Your task to perform on an android device: turn vacation reply on in the gmail app Image 0: 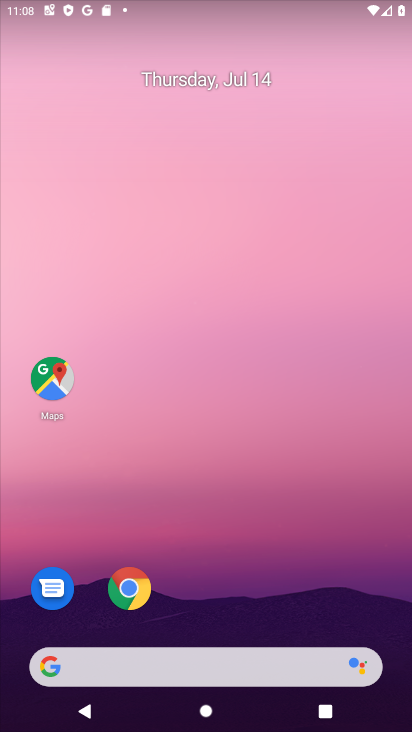
Step 0: drag from (174, 656) to (313, 134)
Your task to perform on an android device: turn vacation reply on in the gmail app Image 1: 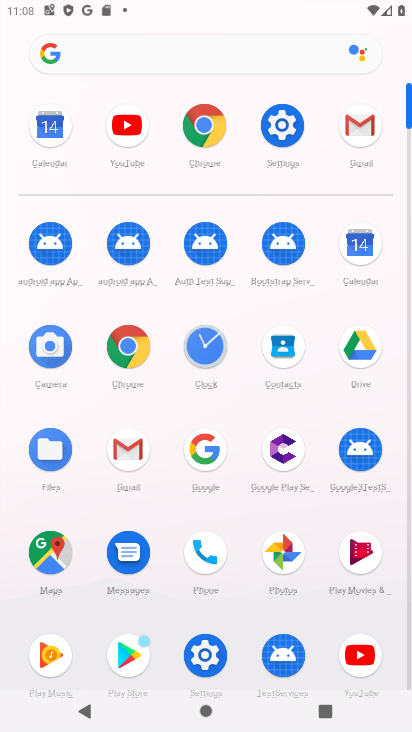
Step 1: click (368, 132)
Your task to perform on an android device: turn vacation reply on in the gmail app Image 2: 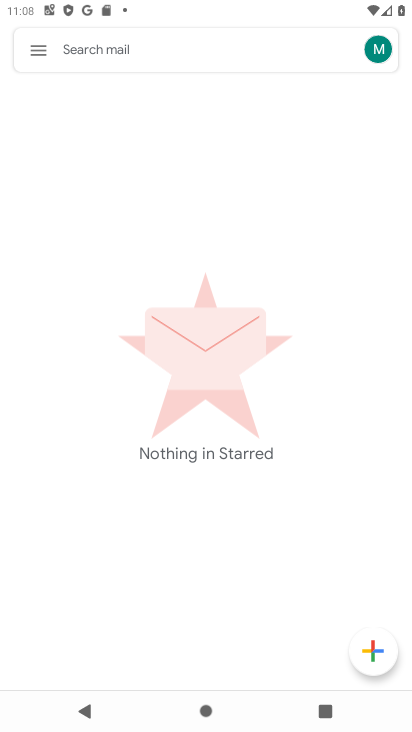
Step 2: click (40, 43)
Your task to perform on an android device: turn vacation reply on in the gmail app Image 3: 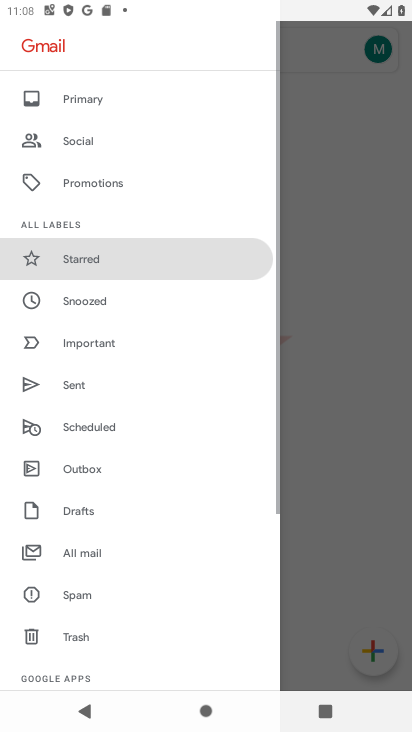
Step 3: drag from (124, 631) to (265, 18)
Your task to perform on an android device: turn vacation reply on in the gmail app Image 4: 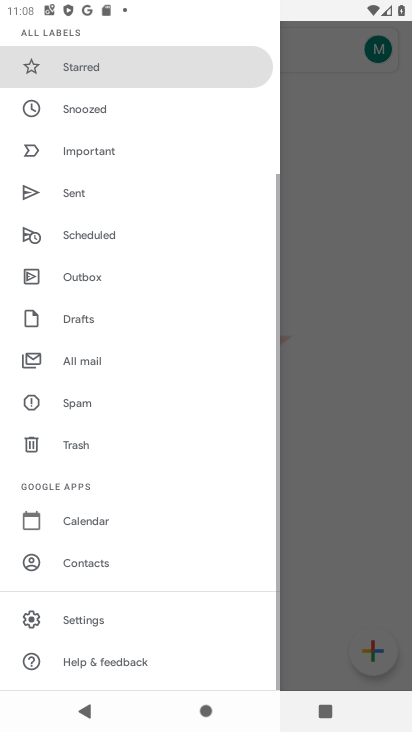
Step 4: click (98, 620)
Your task to perform on an android device: turn vacation reply on in the gmail app Image 5: 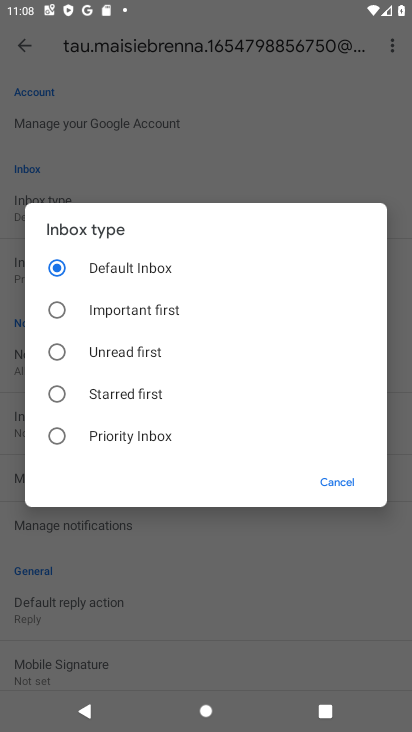
Step 5: click (330, 485)
Your task to perform on an android device: turn vacation reply on in the gmail app Image 6: 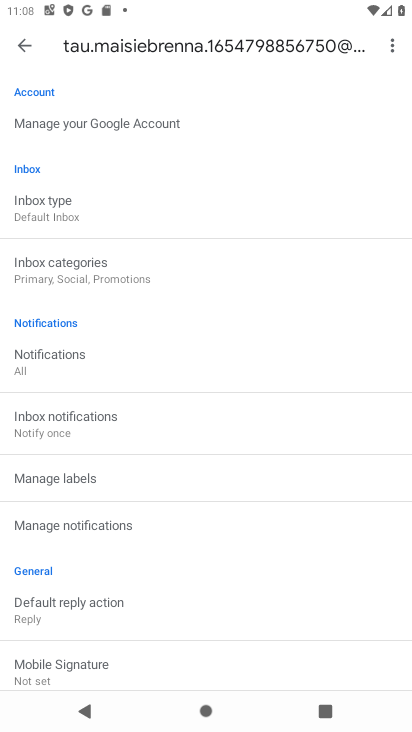
Step 6: drag from (228, 607) to (325, 139)
Your task to perform on an android device: turn vacation reply on in the gmail app Image 7: 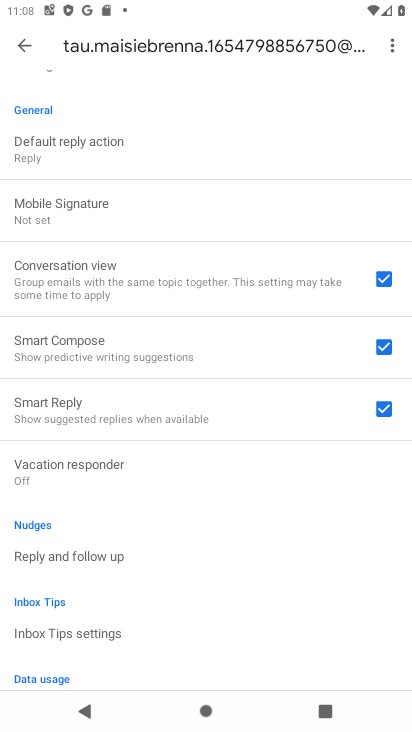
Step 7: click (109, 469)
Your task to perform on an android device: turn vacation reply on in the gmail app Image 8: 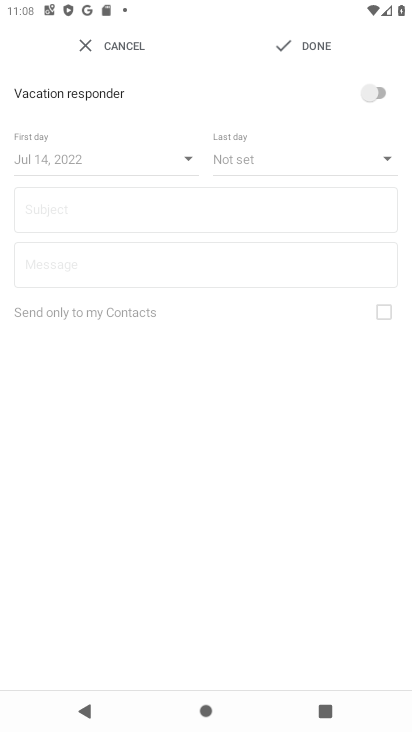
Step 8: click (380, 91)
Your task to perform on an android device: turn vacation reply on in the gmail app Image 9: 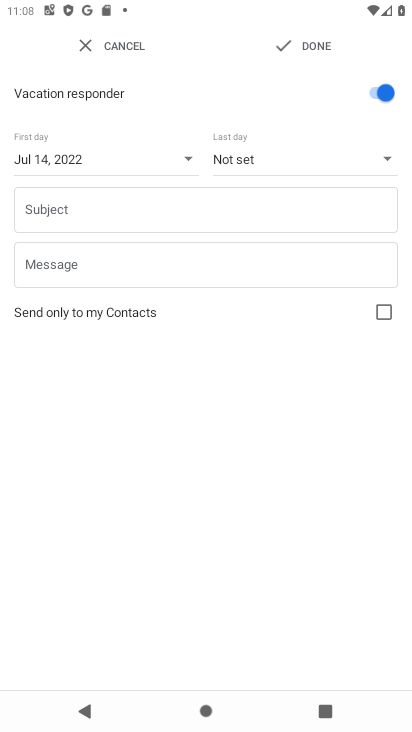
Step 9: click (311, 44)
Your task to perform on an android device: turn vacation reply on in the gmail app Image 10: 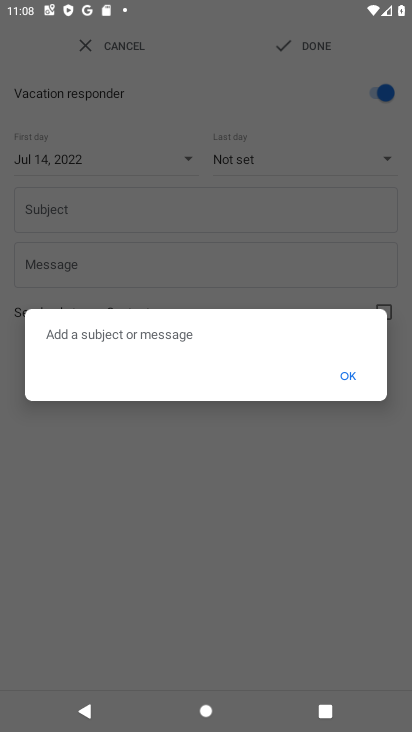
Step 10: click (347, 389)
Your task to perform on an android device: turn vacation reply on in the gmail app Image 11: 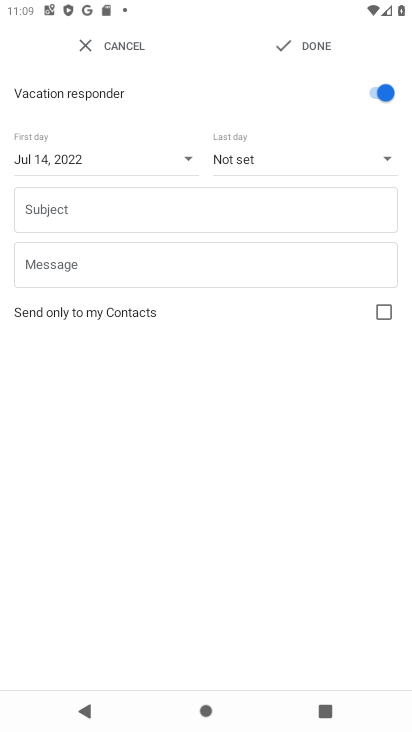
Step 11: click (111, 48)
Your task to perform on an android device: turn vacation reply on in the gmail app Image 12: 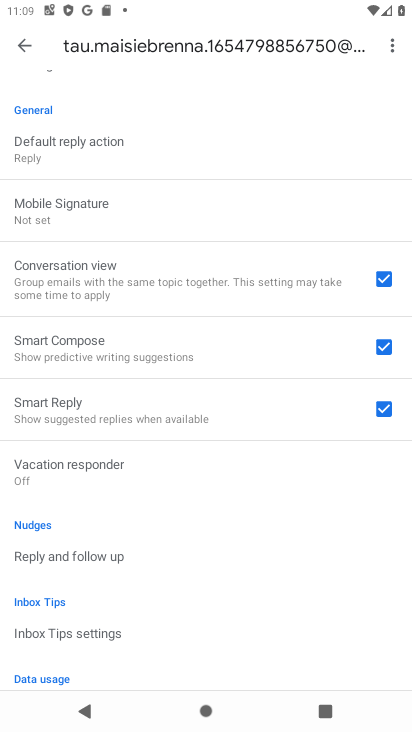
Step 12: task complete